Your task to perform on an android device: What's on my calendar today? Image 0: 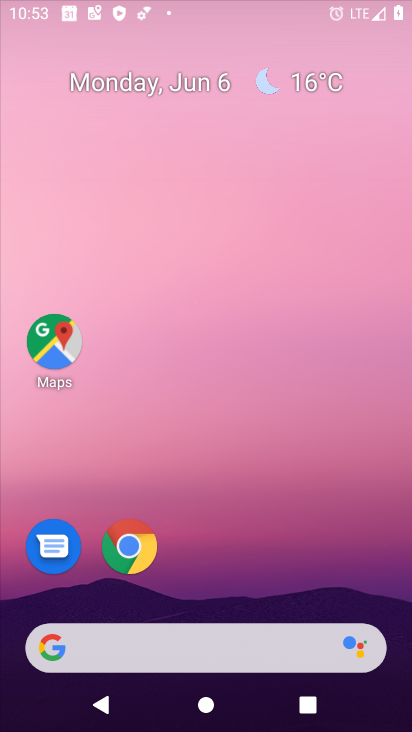
Step 0: drag from (212, 553) to (260, 75)
Your task to perform on an android device: What's on my calendar today? Image 1: 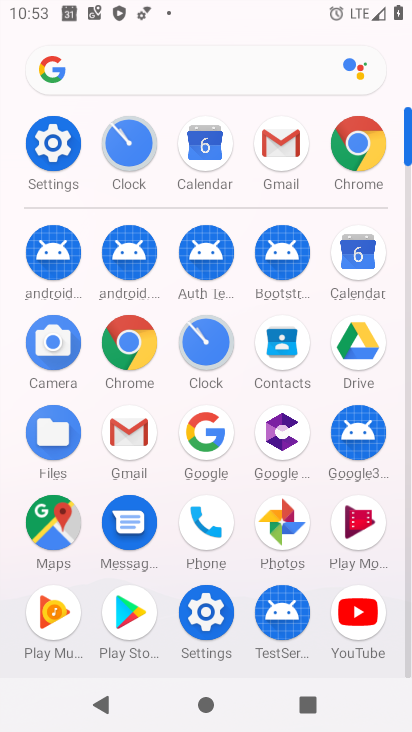
Step 1: click (361, 270)
Your task to perform on an android device: What's on my calendar today? Image 2: 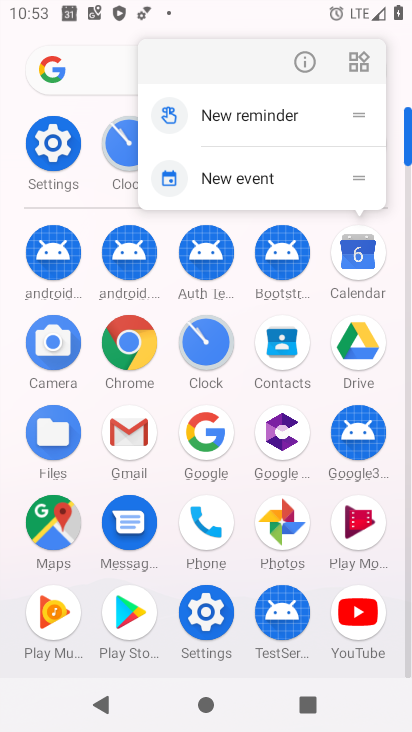
Step 2: click (358, 272)
Your task to perform on an android device: What's on my calendar today? Image 3: 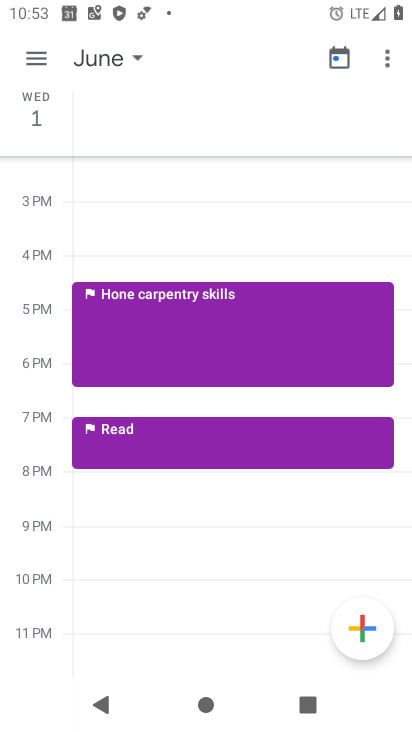
Step 3: click (37, 65)
Your task to perform on an android device: What's on my calendar today? Image 4: 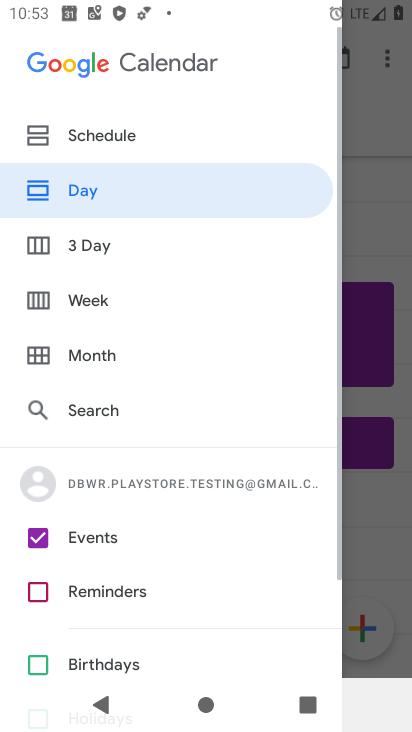
Step 4: drag from (101, 568) to (111, 456)
Your task to perform on an android device: What's on my calendar today? Image 5: 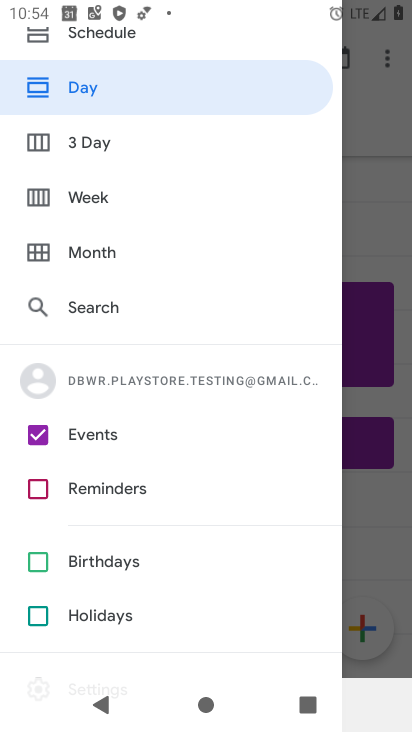
Step 5: click (58, 498)
Your task to perform on an android device: What's on my calendar today? Image 6: 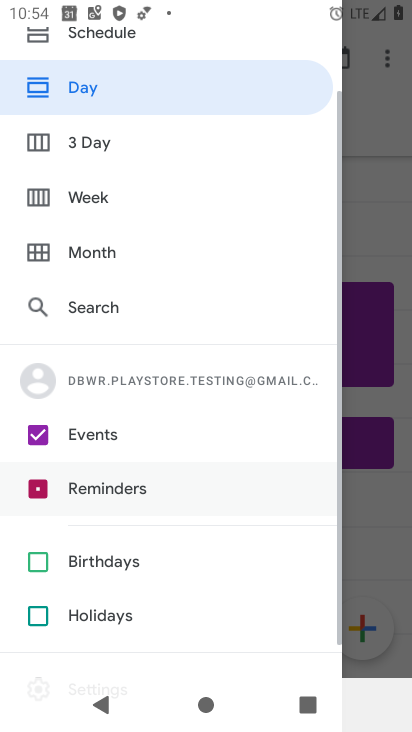
Step 6: click (51, 556)
Your task to perform on an android device: What's on my calendar today? Image 7: 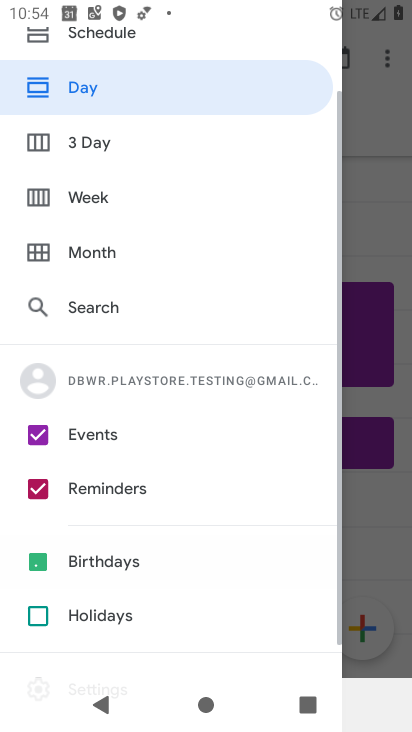
Step 7: click (56, 616)
Your task to perform on an android device: What's on my calendar today? Image 8: 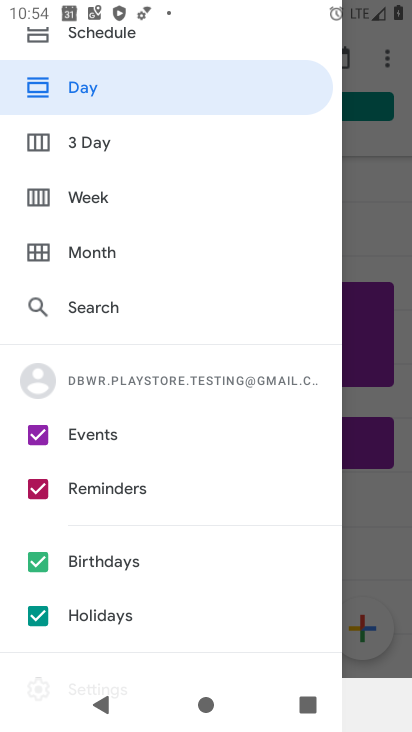
Step 8: click (115, 96)
Your task to perform on an android device: What's on my calendar today? Image 9: 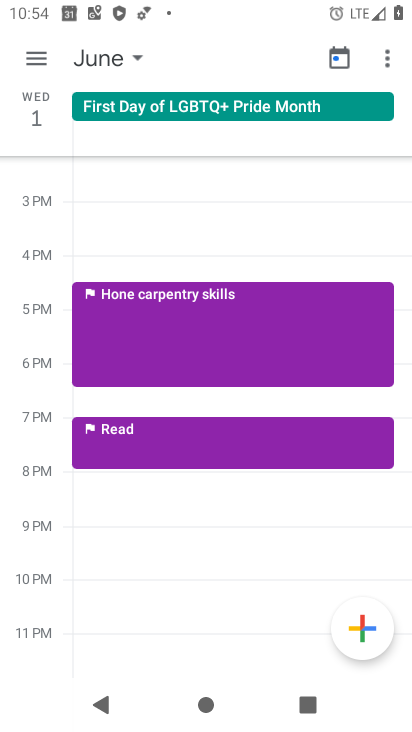
Step 9: drag from (157, 322) to (177, 13)
Your task to perform on an android device: What's on my calendar today? Image 10: 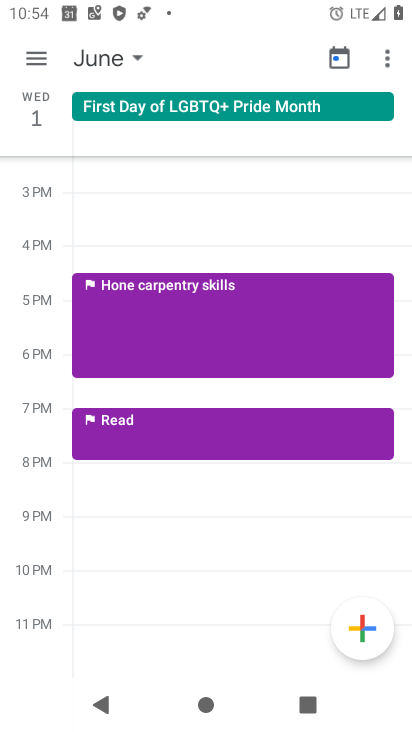
Step 10: drag from (165, 335) to (191, 131)
Your task to perform on an android device: What's on my calendar today? Image 11: 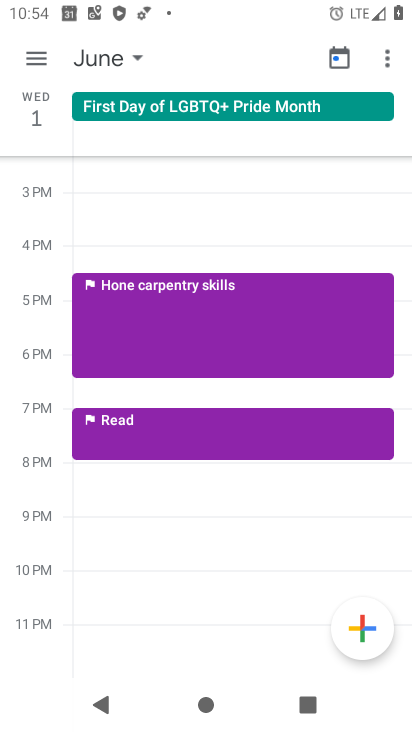
Step 11: click (111, 58)
Your task to perform on an android device: What's on my calendar today? Image 12: 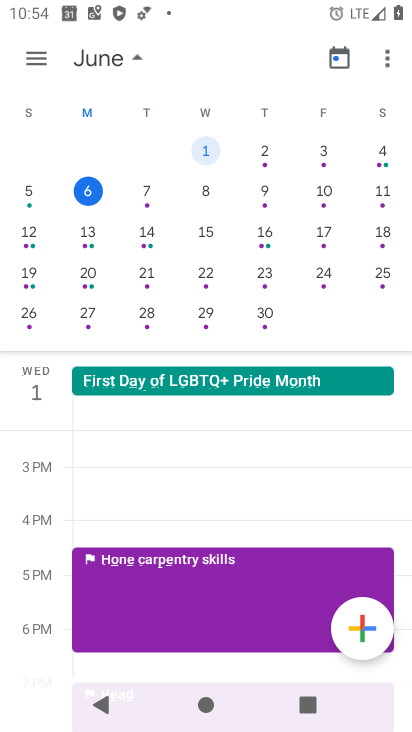
Step 12: click (82, 189)
Your task to perform on an android device: What's on my calendar today? Image 13: 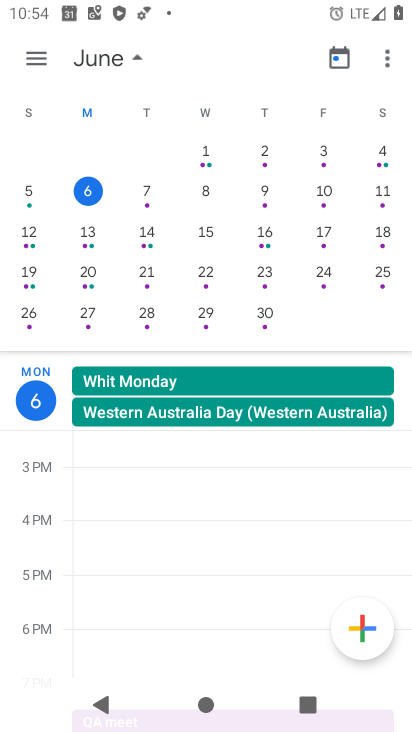
Step 13: click (82, 189)
Your task to perform on an android device: What's on my calendar today? Image 14: 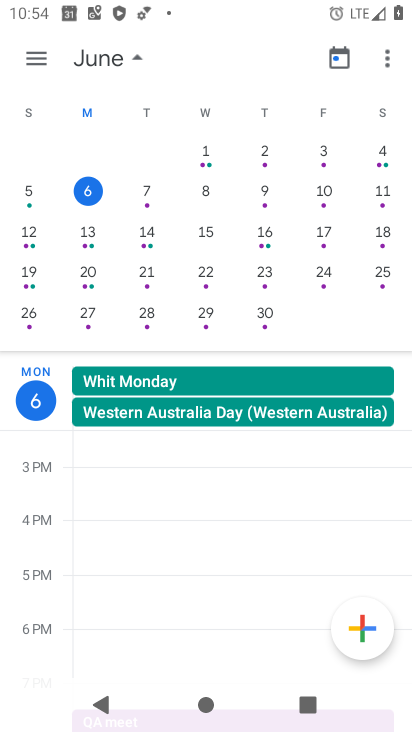
Step 14: click (34, 56)
Your task to perform on an android device: What's on my calendar today? Image 15: 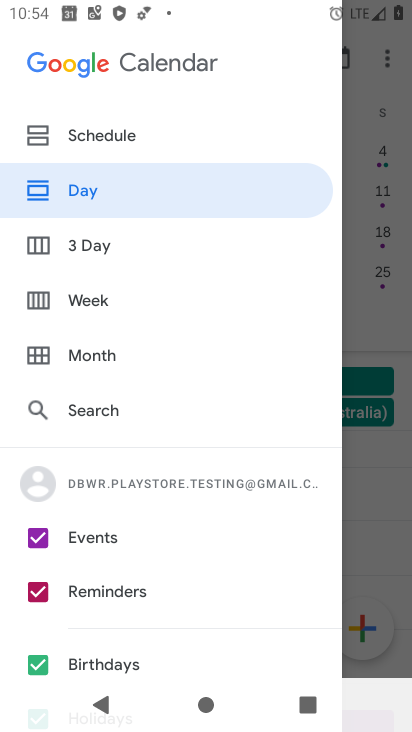
Step 15: click (98, 175)
Your task to perform on an android device: What's on my calendar today? Image 16: 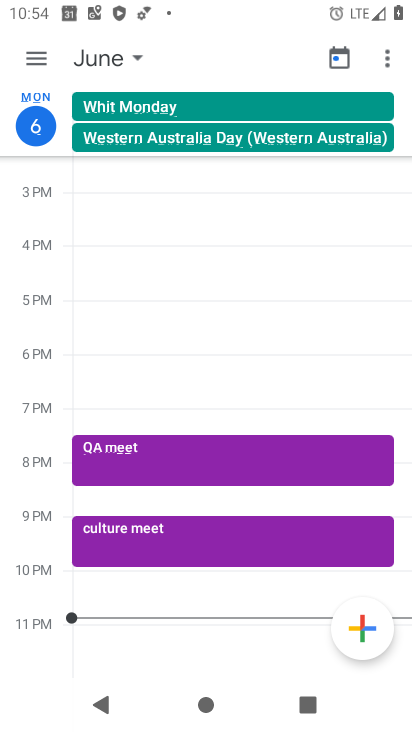
Step 16: task complete